Your task to perform on an android device: turn on bluetooth scan Image 0: 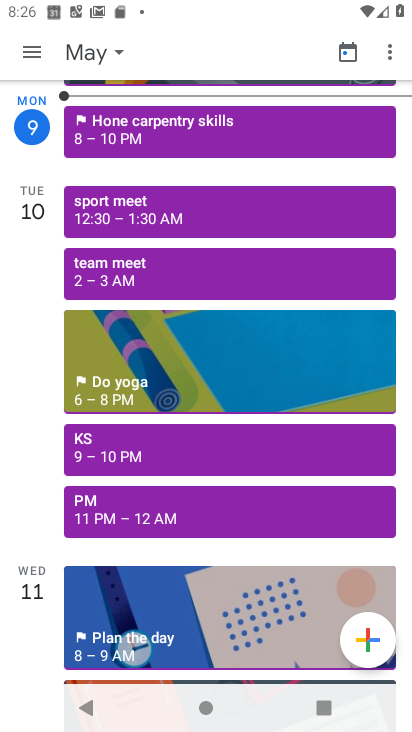
Step 0: click (317, 164)
Your task to perform on an android device: turn on bluetooth scan Image 1: 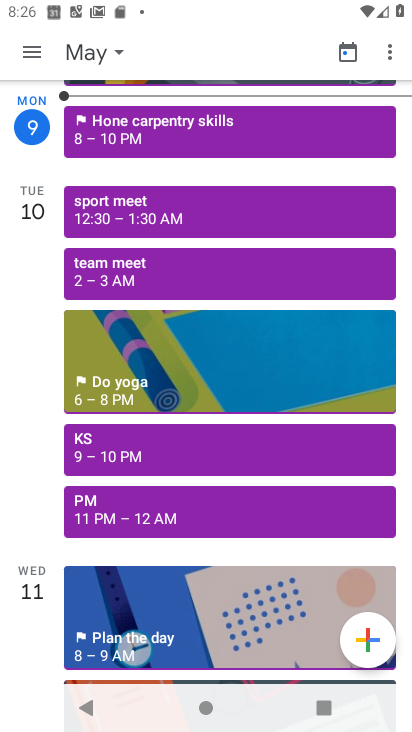
Step 1: press home button
Your task to perform on an android device: turn on bluetooth scan Image 2: 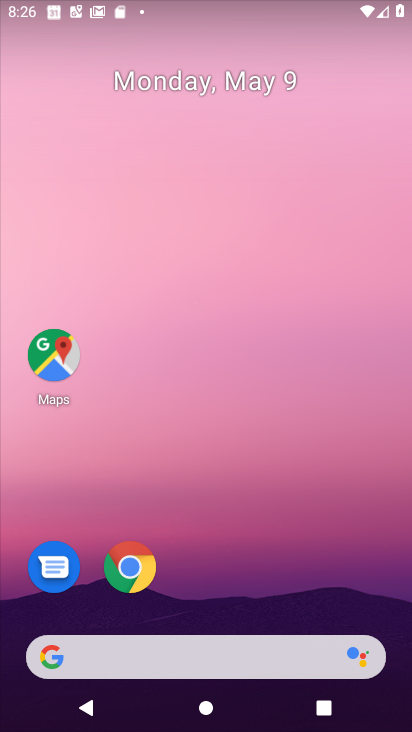
Step 2: drag from (209, 610) to (309, 182)
Your task to perform on an android device: turn on bluetooth scan Image 3: 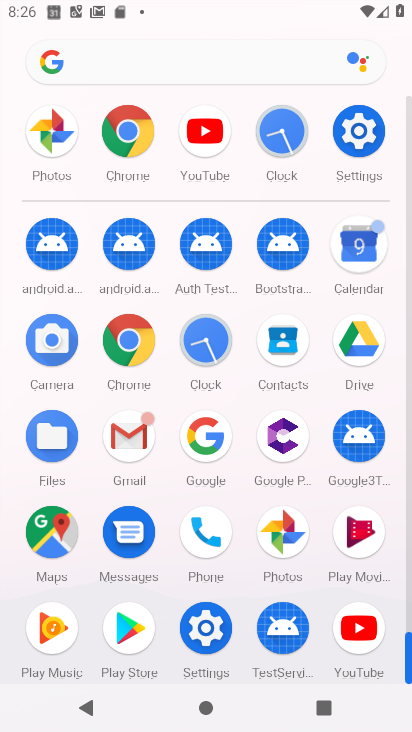
Step 3: click (365, 126)
Your task to perform on an android device: turn on bluetooth scan Image 4: 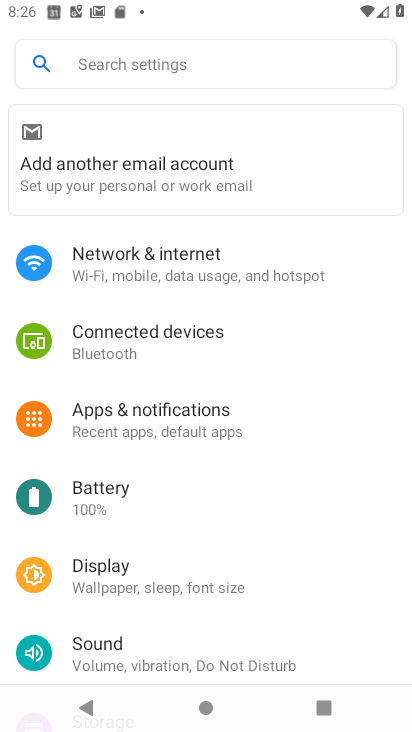
Step 4: click (203, 47)
Your task to perform on an android device: turn on bluetooth scan Image 5: 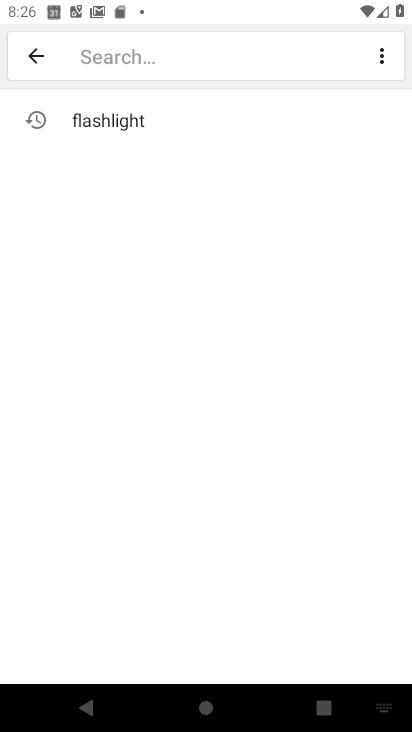
Step 5: type "bluetooth"
Your task to perform on an android device: turn on bluetooth scan Image 6: 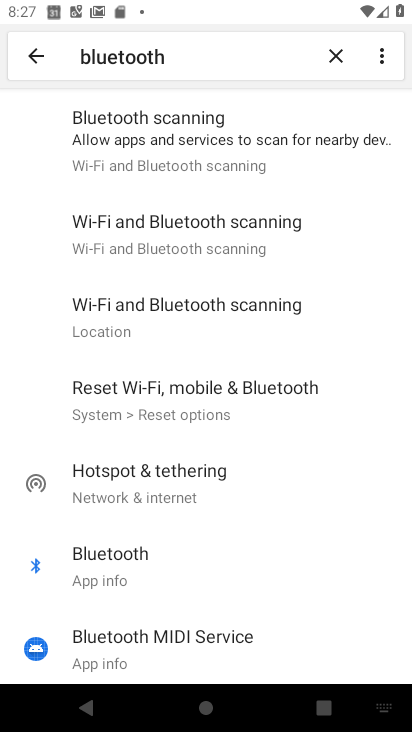
Step 6: click (178, 126)
Your task to perform on an android device: turn on bluetooth scan Image 7: 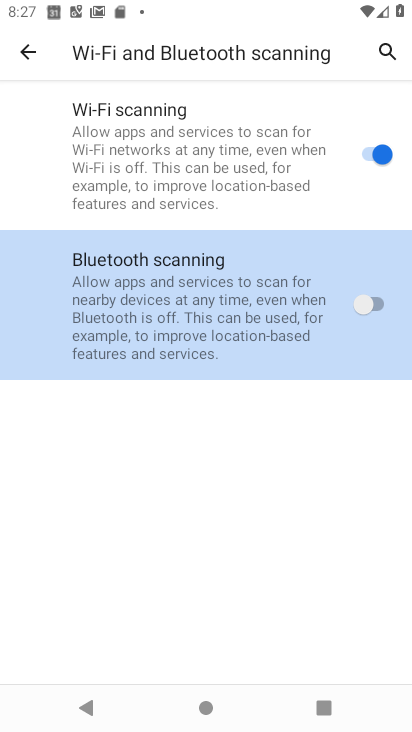
Step 7: click (362, 311)
Your task to perform on an android device: turn on bluetooth scan Image 8: 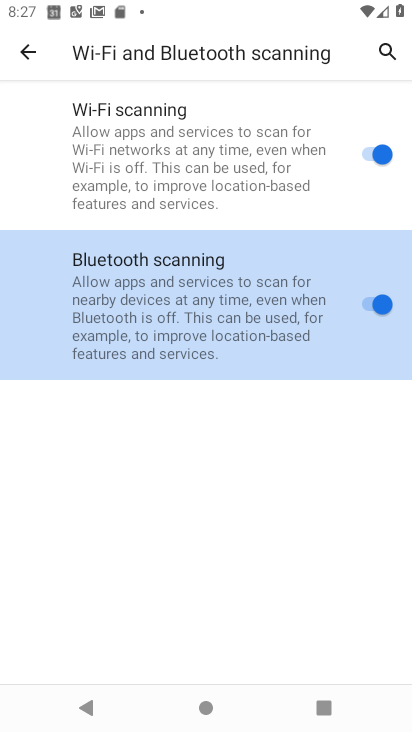
Step 8: task complete